Your task to perform on an android device: toggle javascript in the chrome app Image 0: 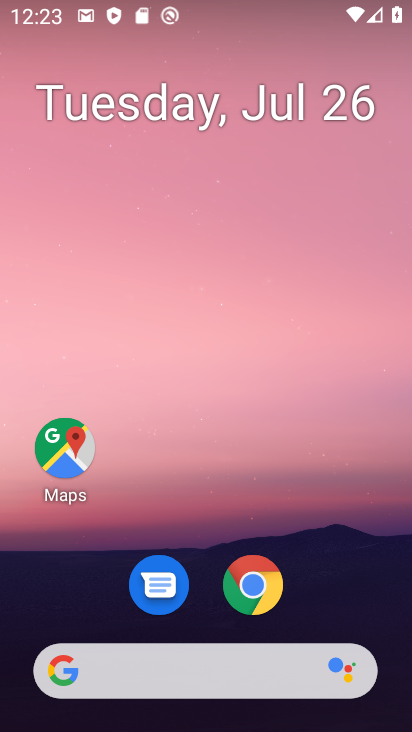
Step 0: press home button
Your task to perform on an android device: toggle javascript in the chrome app Image 1: 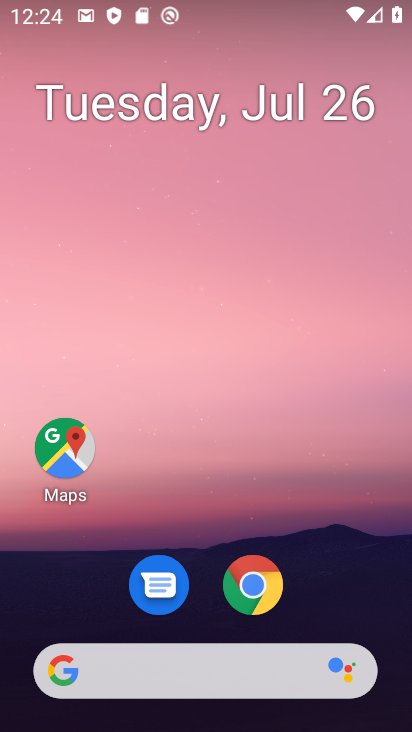
Step 1: click (253, 584)
Your task to perform on an android device: toggle javascript in the chrome app Image 2: 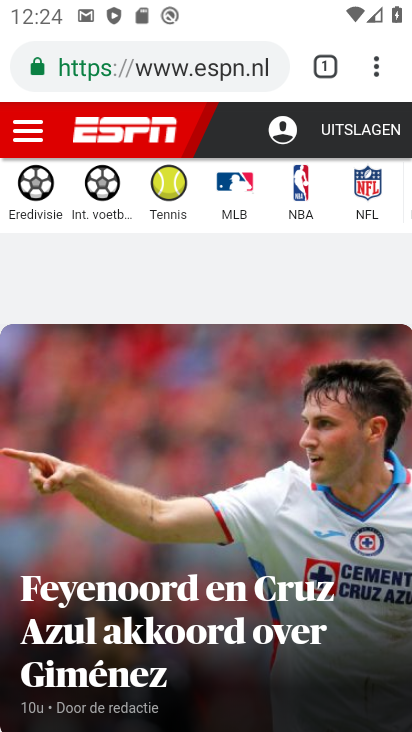
Step 2: drag from (374, 62) to (200, 597)
Your task to perform on an android device: toggle javascript in the chrome app Image 3: 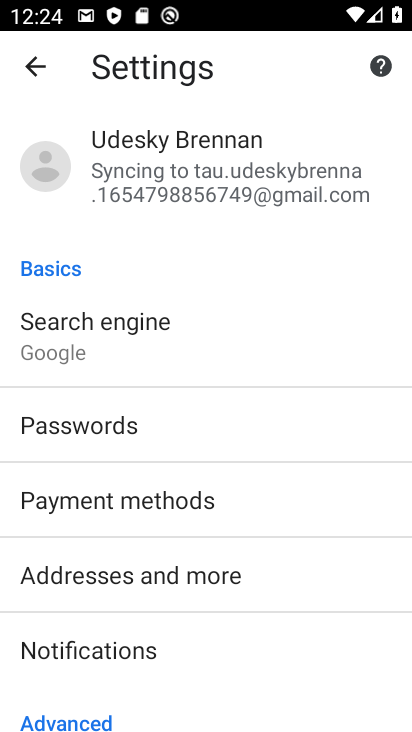
Step 3: drag from (207, 643) to (272, 113)
Your task to perform on an android device: toggle javascript in the chrome app Image 4: 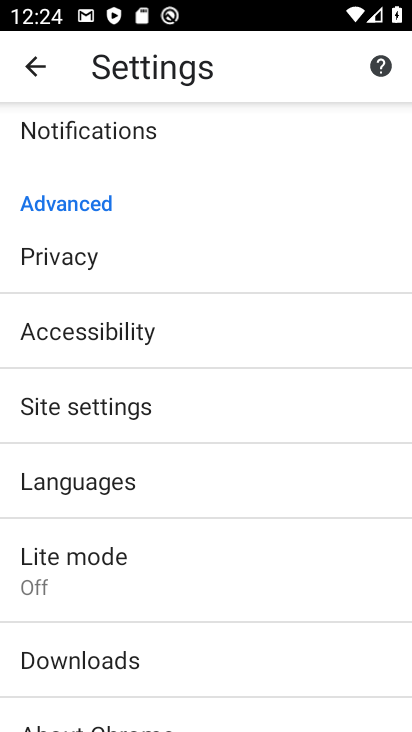
Step 4: click (114, 412)
Your task to perform on an android device: toggle javascript in the chrome app Image 5: 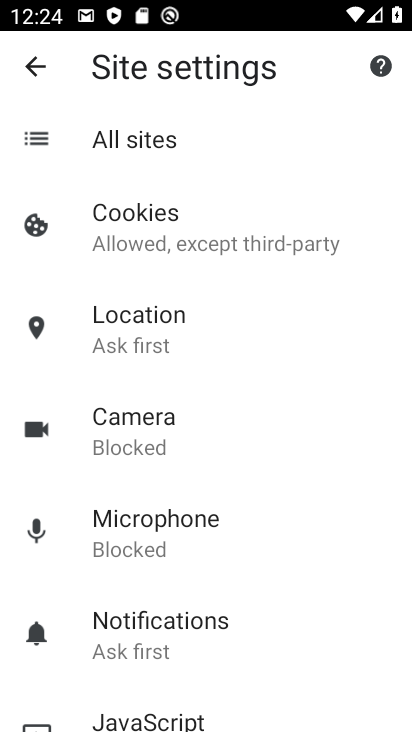
Step 5: drag from (218, 618) to (276, 250)
Your task to perform on an android device: toggle javascript in the chrome app Image 6: 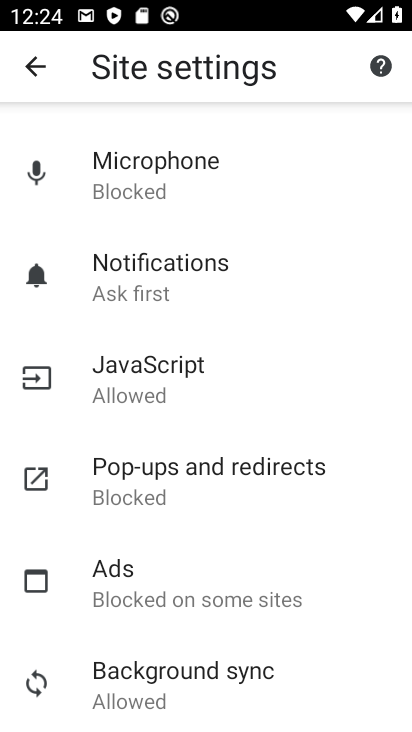
Step 6: click (152, 391)
Your task to perform on an android device: toggle javascript in the chrome app Image 7: 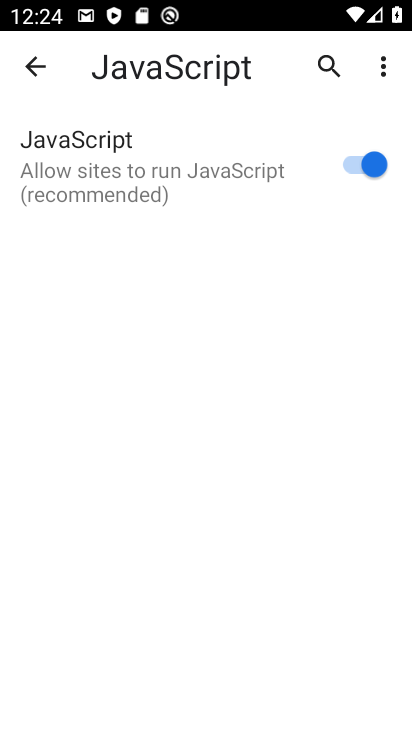
Step 7: click (353, 157)
Your task to perform on an android device: toggle javascript in the chrome app Image 8: 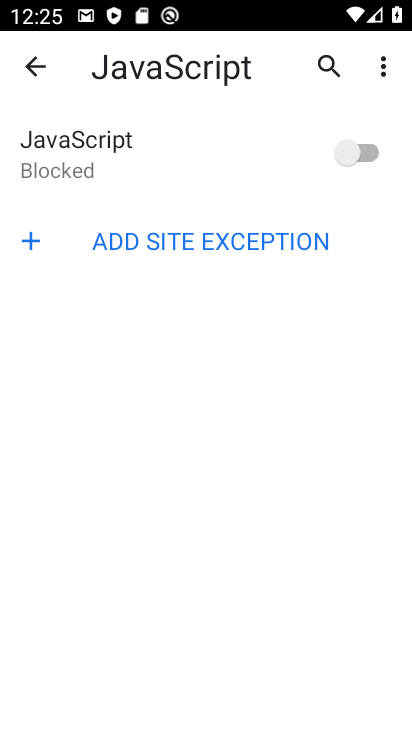
Step 8: task complete